Your task to perform on an android device: Clear the shopping cart on walmart. Add logitech g pro to the cart on walmart Image 0: 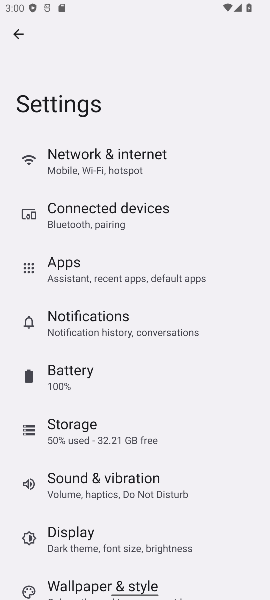
Step 0: press home button
Your task to perform on an android device: Clear the shopping cart on walmart. Add logitech g pro to the cart on walmart Image 1: 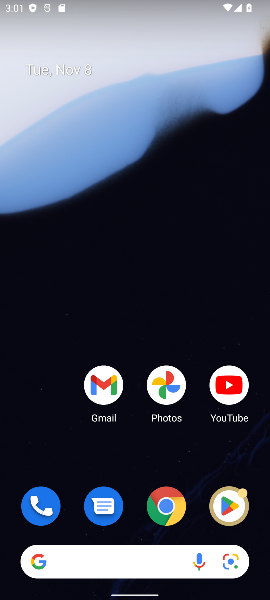
Step 1: drag from (164, 466) to (209, 171)
Your task to perform on an android device: Clear the shopping cart on walmart. Add logitech g pro to the cart on walmart Image 2: 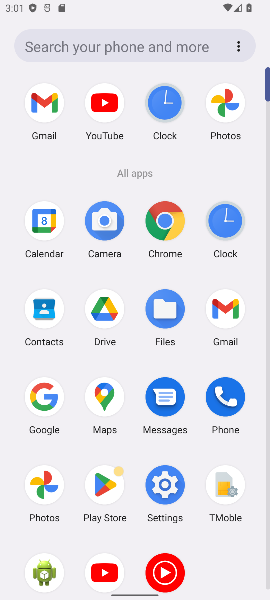
Step 2: click (47, 401)
Your task to perform on an android device: Clear the shopping cart on walmart. Add logitech g pro to the cart on walmart Image 3: 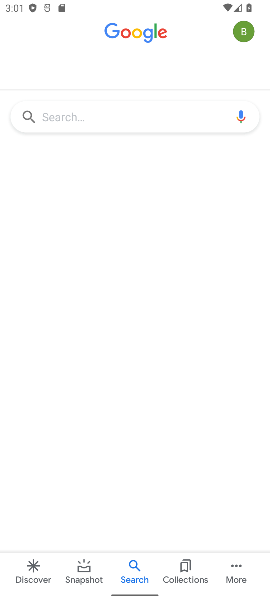
Step 3: click (104, 127)
Your task to perform on an android device: Clear the shopping cart on walmart. Add logitech g pro to the cart on walmart Image 4: 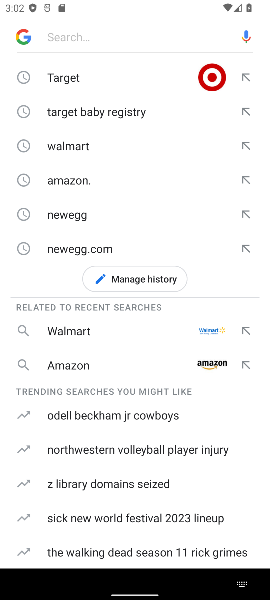
Step 4: type "walmart"
Your task to perform on an android device: Clear the shopping cart on walmart. Add logitech g pro to the cart on walmart Image 5: 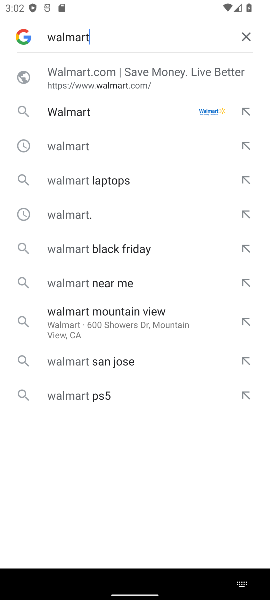
Step 5: click (116, 100)
Your task to perform on an android device: Clear the shopping cart on walmart. Add logitech g pro to the cart on walmart Image 6: 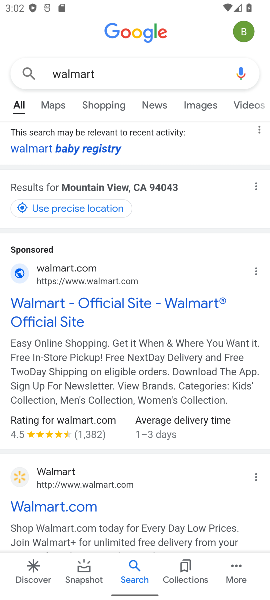
Step 6: click (77, 307)
Your task to perform on an android device: Clear the shopping cart on walmart. Add logitech g pro to the cart on walmart Image 7: 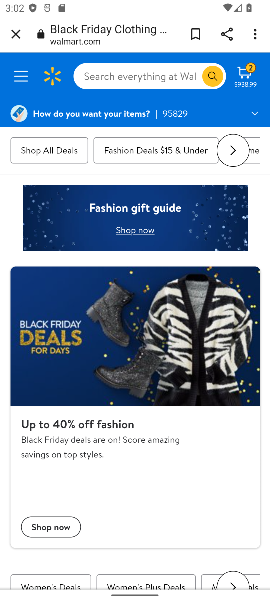
Step 7: click (144, 78)
Your task to perform on an android device: Clear the shopping cart on walmart. Add logitech g pro to the cart on walmart Image 8: 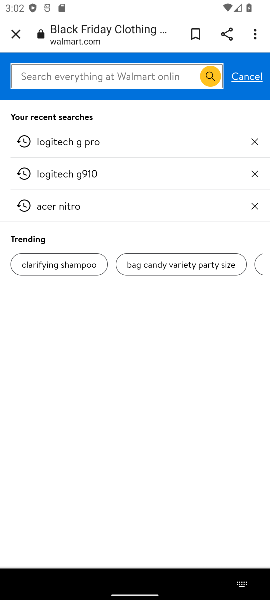
Step 8: type "logitech g pro"
Your task to perform on an android device: Clear the shopping cart on walmart. Add logitech g pro to the cart on walmart Image 9: 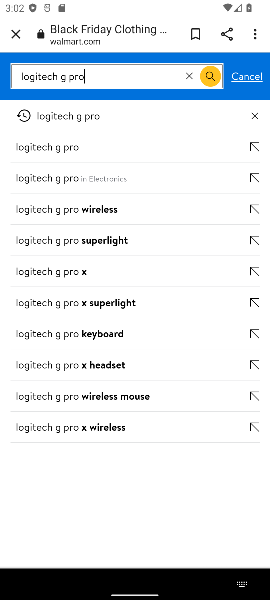
Step 9: click (42, 116)
Your task to perform on an android device: Clear the shopping cart on walmart. Add logitech g pro to the cart on walmart Image 10: 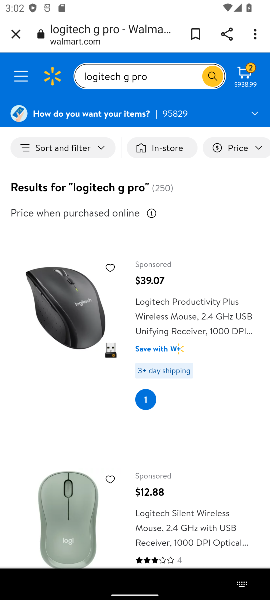
Step 10: click (214, 78)
Your task to perform on an android device: Clear the shopping cart on walmart. Add logitech g pro to the cart on walmart Image 11: 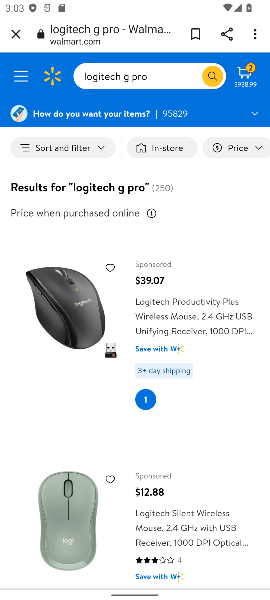
Step 11: click (249, 73)
Your task to perform on an android device: Clear the shopping cart on walmart. Add logitech g pro to the cart on walmart Image 12: 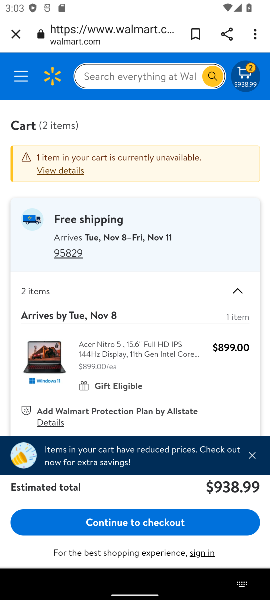
Step 12: drag from (125, 385) to (125, 262)
Your task to perform on an android device: Clear the shopping cart on walmart. Add logitech g pro to the cart on walmart Image 13: 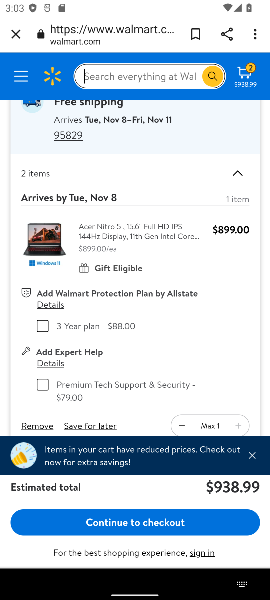
Step 13: drag from (120, 343) to (122, 230)
Your task to perform on an android device: Clear the shopping cart on walmart. Add logitech g pro to the cart on walmart Image 14: 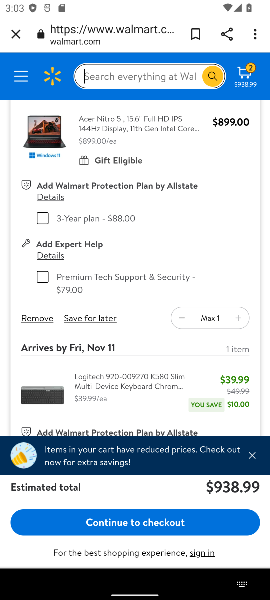
Step 14: click (186, 314)
Your task to perform on an android device: Clear the shopping cart on walmart. Add logitech g pro to the cart on walmart Image 15: 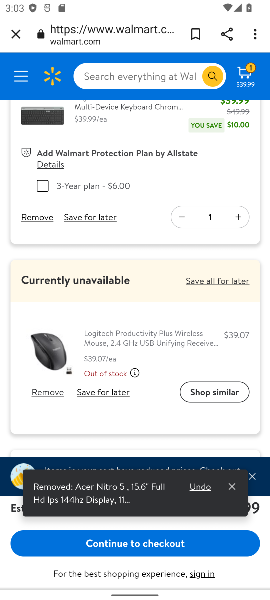
Step 15: click (178, 230)
Your task to perform on an android device: Clear the shopping cart on walmart. Add logitech g pro to the cart on walmart Image 16: 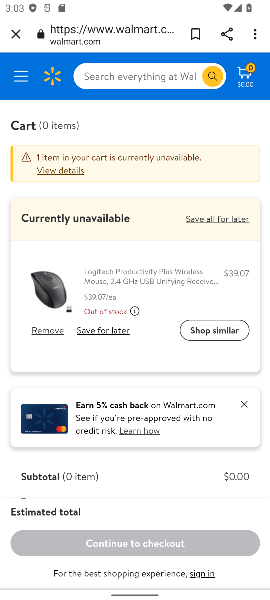
Step 16: press back button
Your task to perform on an android device: Clear the shopping cart on walmart. Add logitech g pro to the cart on walmart Image 17: 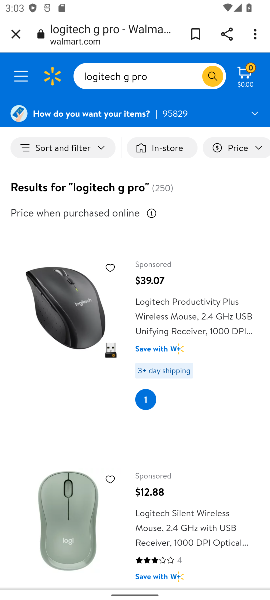
Step 17: click (193, 335)
Your task to perform on an android device: Clear the shopping cart on walmart. Add logitech g pro to the cart on walmart Image 18: 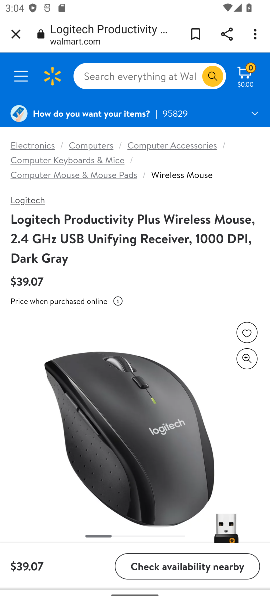
Step 18: drag from (166, 436) to (109, 0)
Your task to perform on an android device: Clear the shopping cart on walmart. Add logitech g pro to the cart on walmart Image 19: 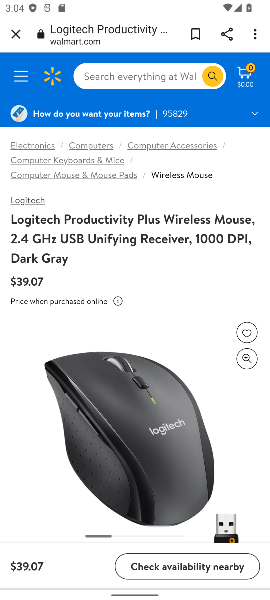
Step 19: drag from (126, 410) to (120, 223)
Your task to perform on an android device: Clear the shopping cart on walmart. Add logitech g pro to the cart on walmart Image 20: 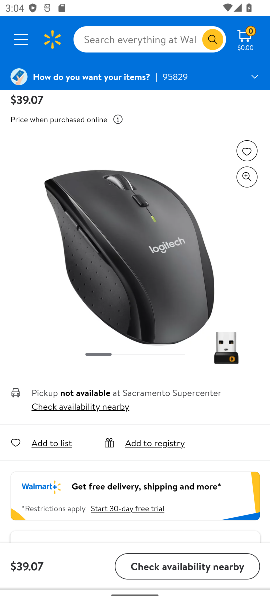
Step 20: drag from (102, 425) to (104, 285)
Your task to perform on an android device: Clear the shopping cart on walmart. Add logitech g pro to the cart on walmart Image 21: 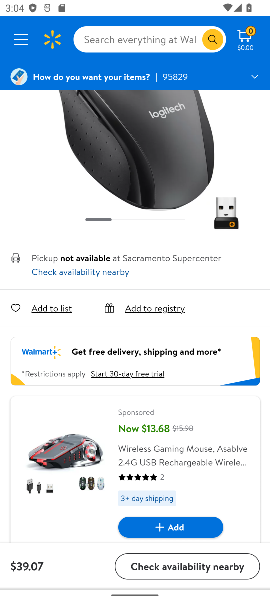
Step 21: click (177, 530)
Your task to perform on an android device: Clear the shopping cart on walmart. Add logitech g pro to the cart on walmart Image 22: 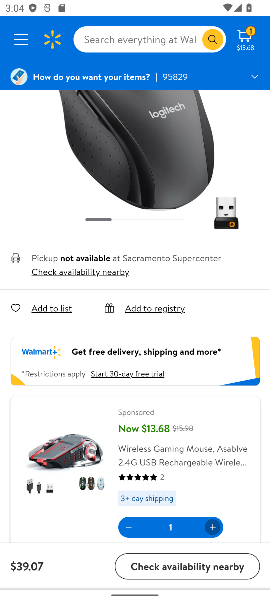
Step 22: task complete